Your task to perform on an android device: Open settings on Google Maps Image 0: 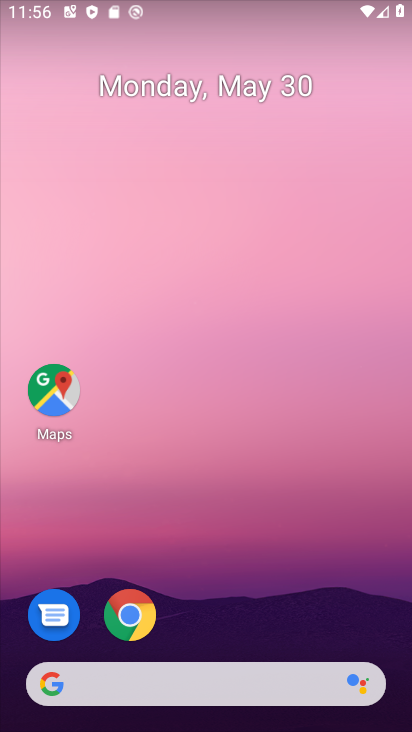
Step 0: drag from (375, 631) to (375, 273)
Your task to perform on an android device: Open settings on Google Maps Image 1: 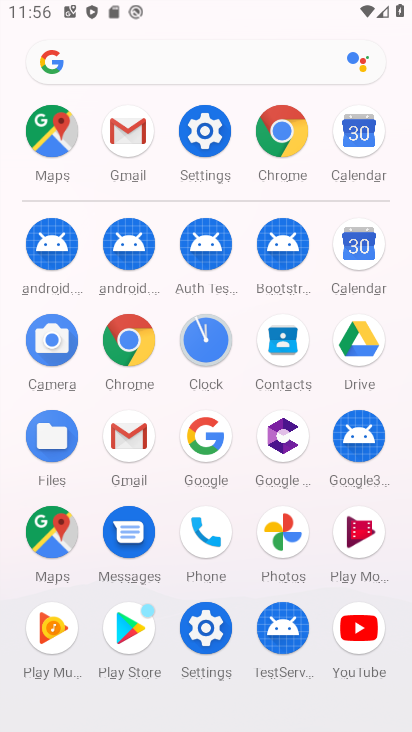
Step 1: click (134, 343)
Your task to perform on an android device: Open settings on Google Maps Image 2: 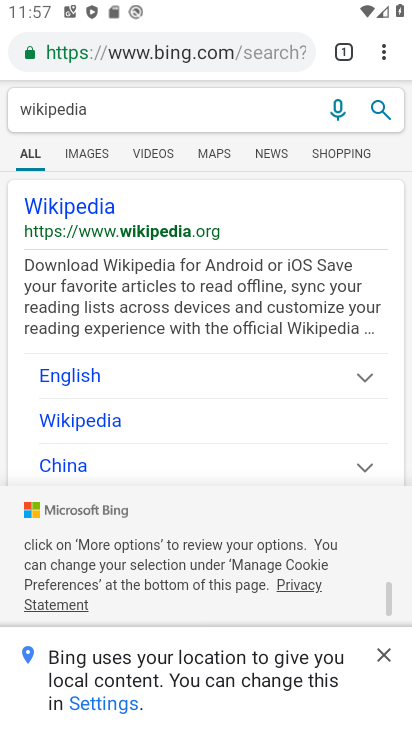
Step 2: click (383, 63)
Your task to perform on an android device: Open settings on Google Maps Image 3: 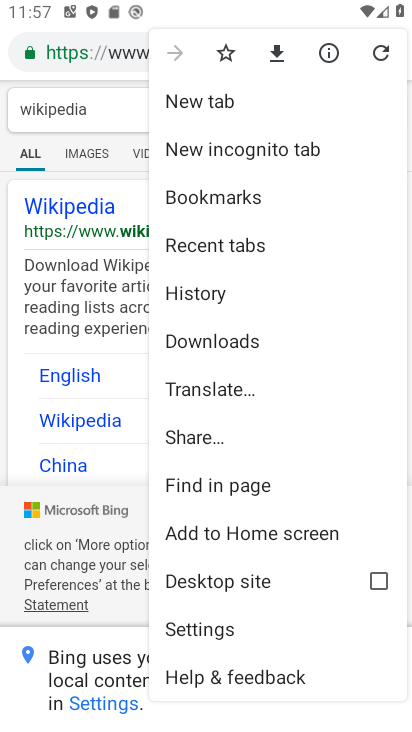
Step 3: drag from (353, 348) to (345, 238)
Your task to perform on an android device: Open settings on Google Maps Image 4: 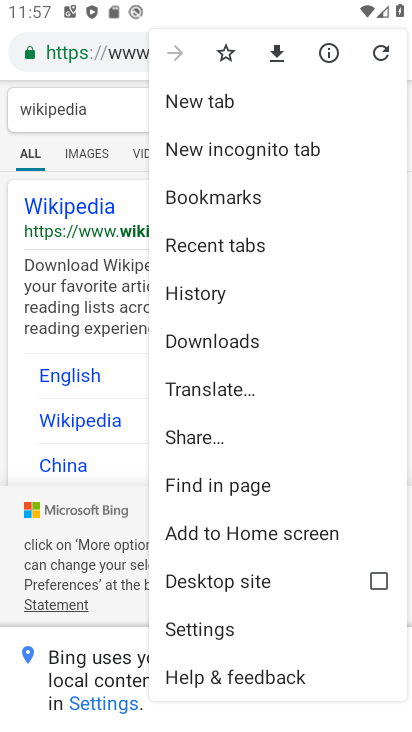
Step 4: click (272, 635)
Your task to perform on an android device: Open settings on Google Maps Image 5: 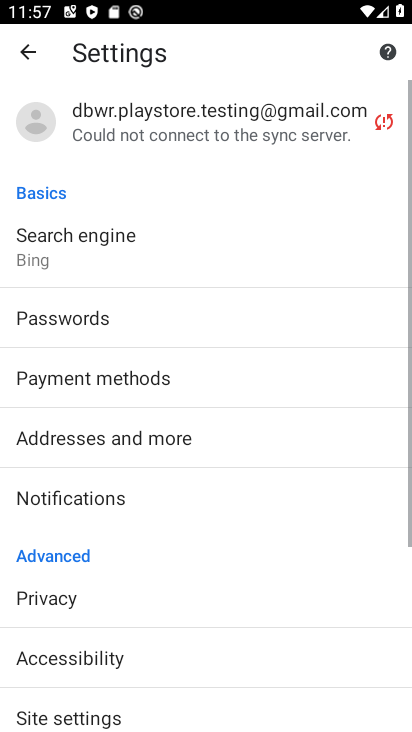
Step 5: task complete